Your task to perform on an android device: turn off picture-in-picture Image 0: 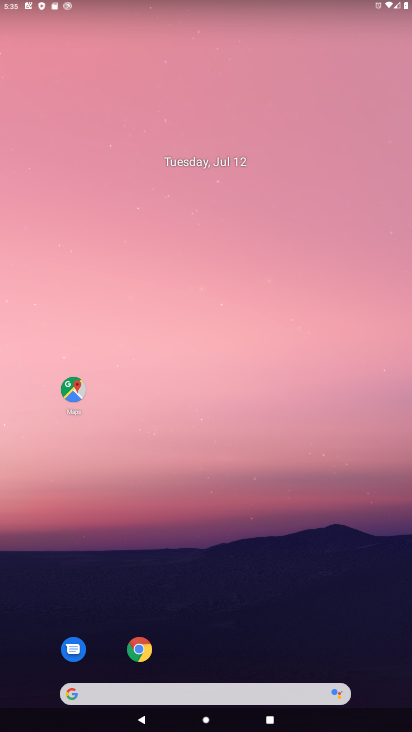
Step 0: click (138, 651)
Your task to perform on an android device: turn off picture-in-picture Image 1: 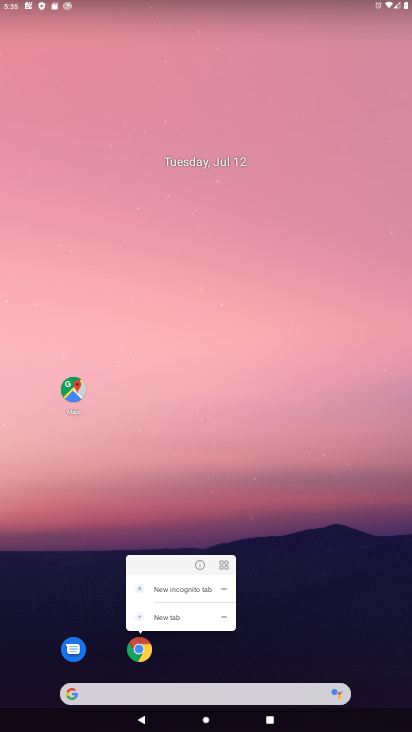
Step 1: click (198, 565)
Your task to perform on an android device: turn off picture-in-picture Image 2: 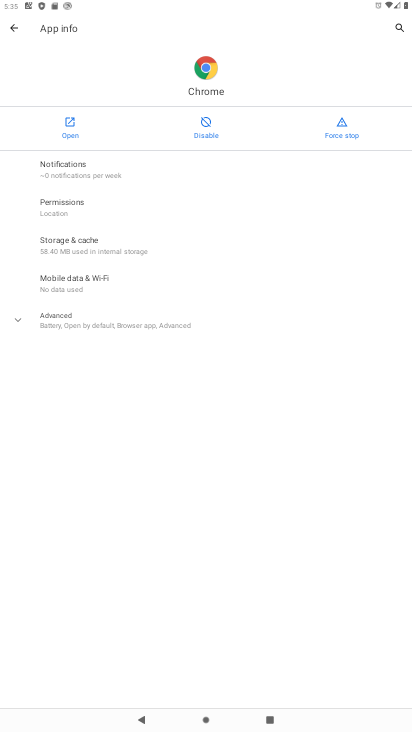
Step 2: click (119, 321)
Your task to perform on an android device: turn off picture-in-picture Image 3: 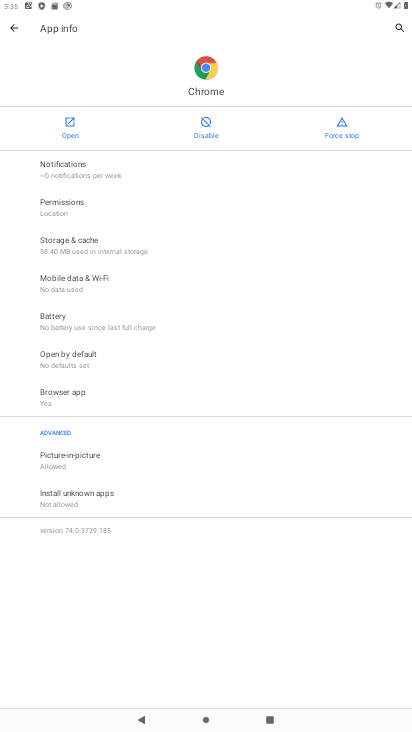
Step 3: click (74, 463)
Your task to perform on an android device: turn off picture-in-picture Image 4: 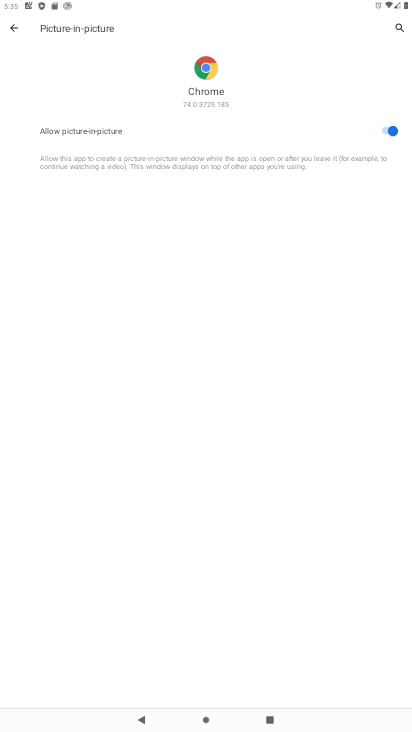
Step 4: click (385, 135)
Your task to perform on an android device: turn off picture-in-picture Image 5: 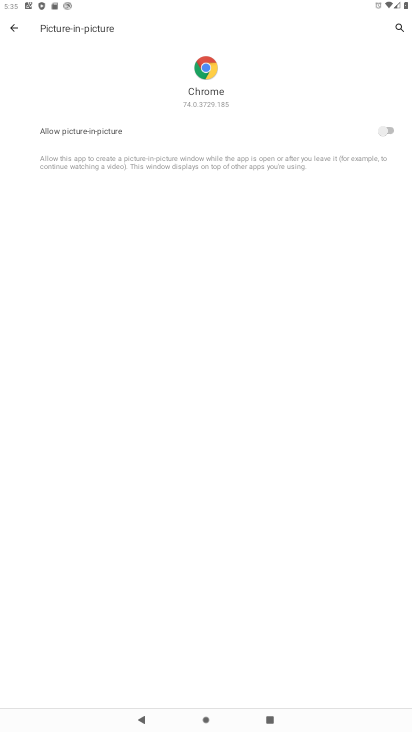
Step 5: task complete